Your task to perform on an android device: turn pop-ups off in chrome Image 0: 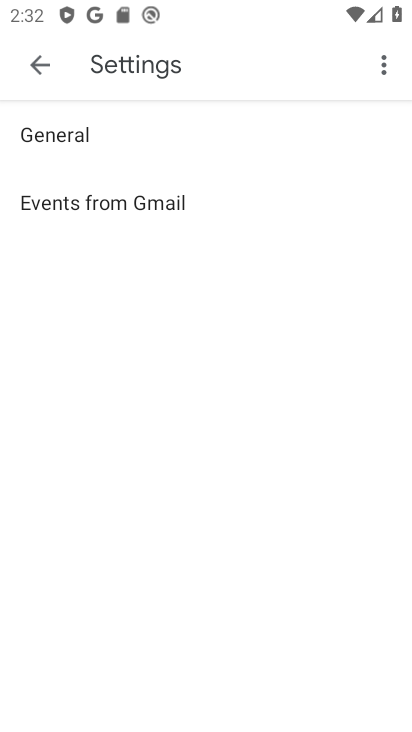
Step 0: press back button
Your task to perform on an android device: turn pop-ups off in chrome Image 1: 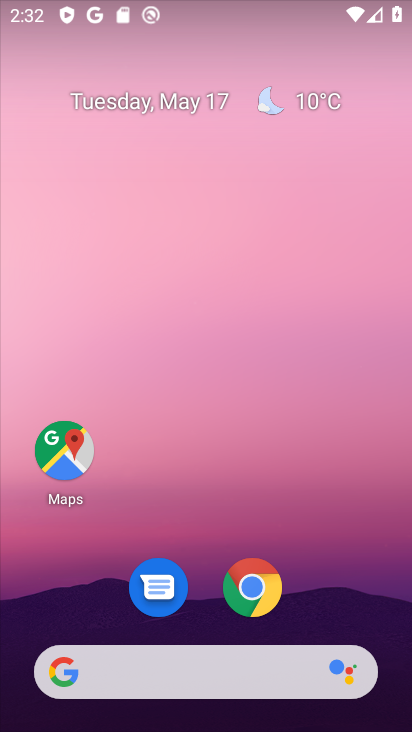
Step 1: drag from (361, 555) to (267, 6)
Your task to perform on an android device: turn pop-ups off in chrome Image 2: 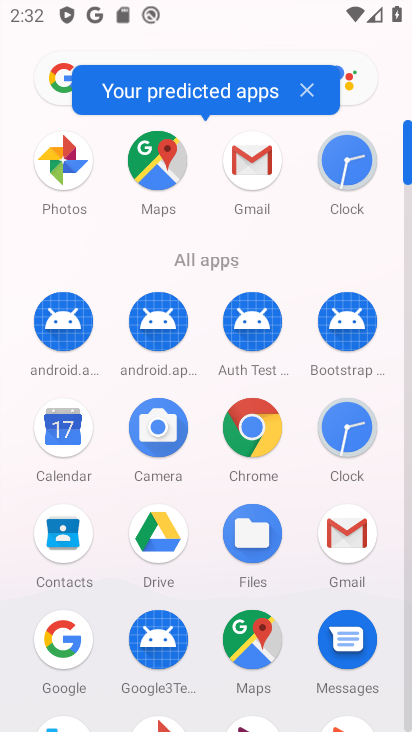
Step 2: drag from (30, 509) to (25, 269)
Your task to perform on an android device: turn pop-ups off in chrome Image 3: 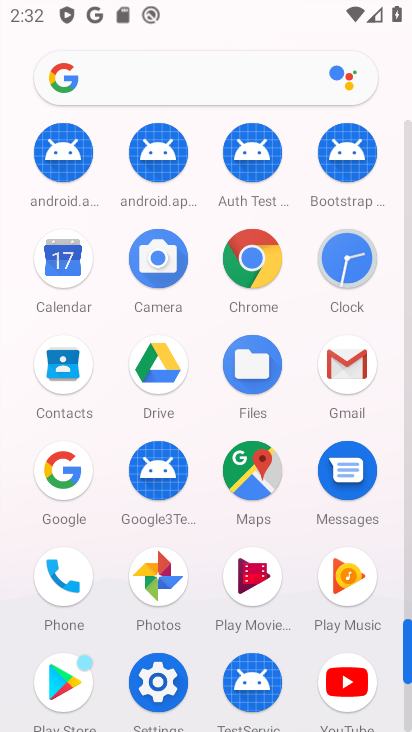
Step 3: click (252, 253)
Your task to perform on an android device: turn pop-ups off in chrome Image 4: 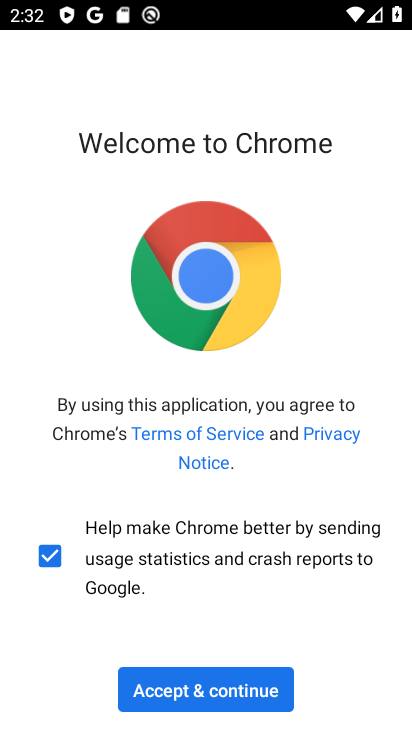
Step 4: click (254, 695)
Your task to perform on an android device: turn pop-ups off in chrome Image 5: 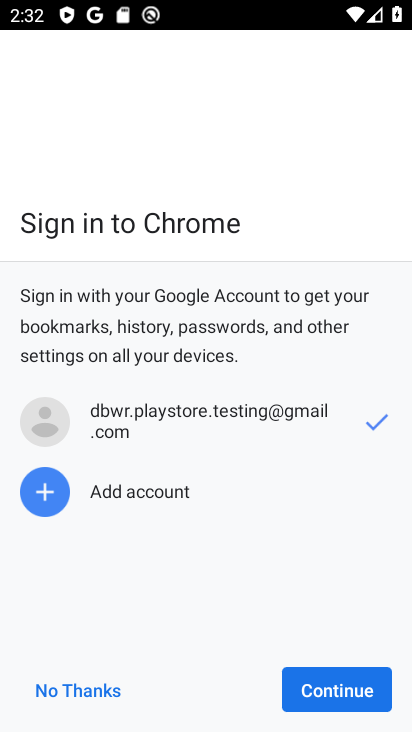
Step 5: click (352, 684)
Your task to perform on an android device: turn pop-ups off in chrome Image 6: 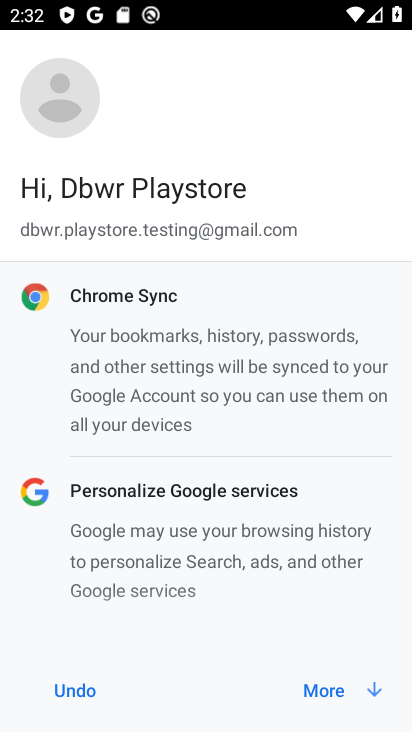
Step 6: click (317, 693)
Your task to perform on an android device: turn pop-ups off in chrome Image 7: 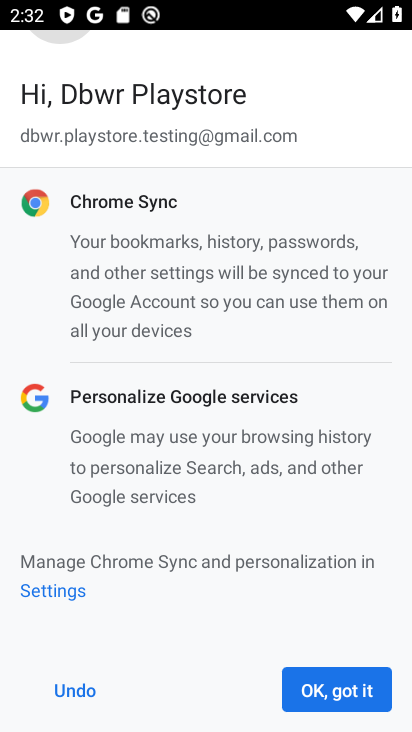
Step 7: click (317, 693)
Your task to perform on an android device: turn pop-ups off in chrome Image 8: 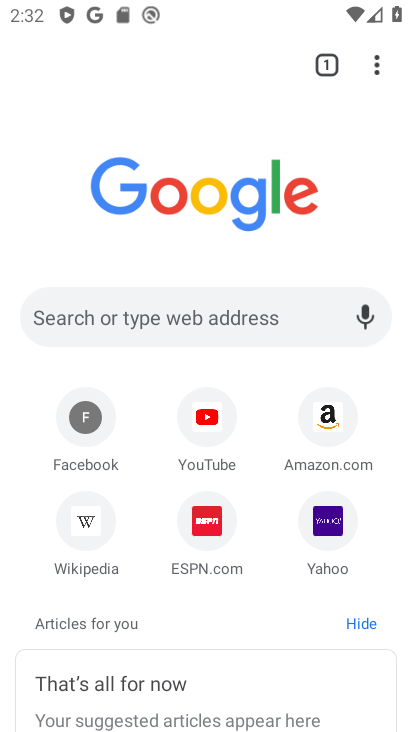
Step 8: drag from (380, 63) to (188, 547)
Your task to perform on an android device: turn pop-ups off in chrome Image 9: 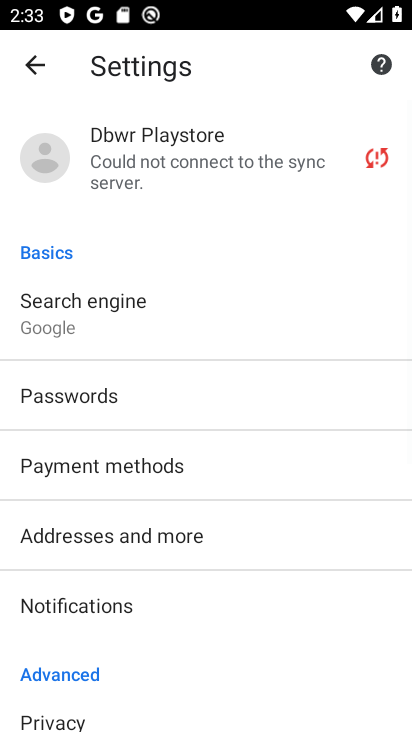
Step 9: drag from (229, 540) to (217, 241)
Your task to perform on an android device: turn pop-ups off in chrome Image 10: 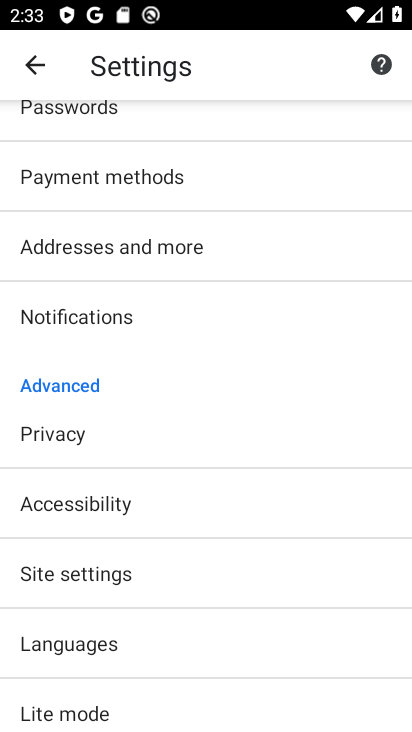
Step 10: click (136, 575)
Your task to perform on an android device: turn pop-ups off in chrome Image 11: 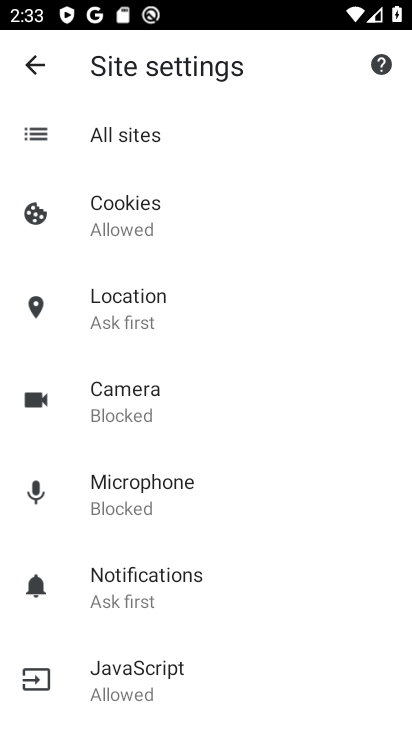
Step 11: drag from (225, 519) to (225, 149)
Your task to perform on an android device: turn pop-ups off in chrome Image 12: 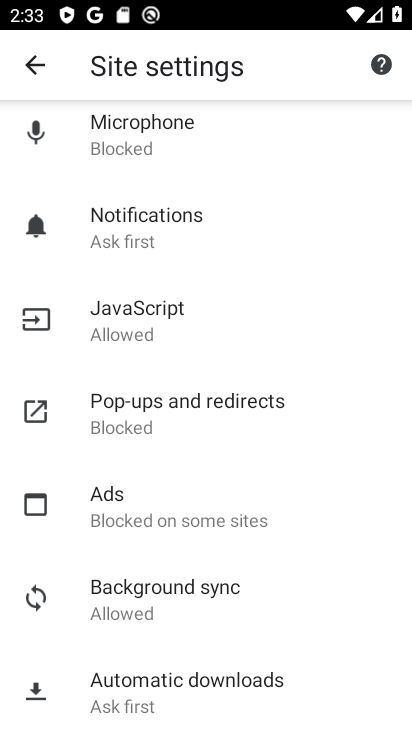
Step 12: click (197, 407)
Your task to perform on an android device: turn pop-ups off in chrome Image 13: 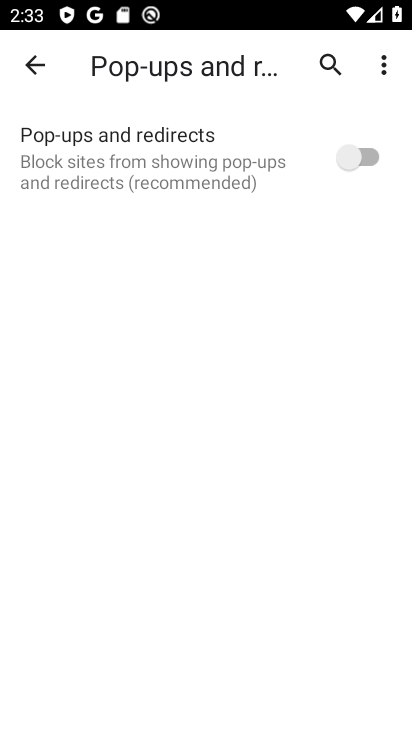
Step 13: task complete